Your task to perform on an android device: Clear the cart on amazon. Add macbook pro to the cart on amazon Image 0: 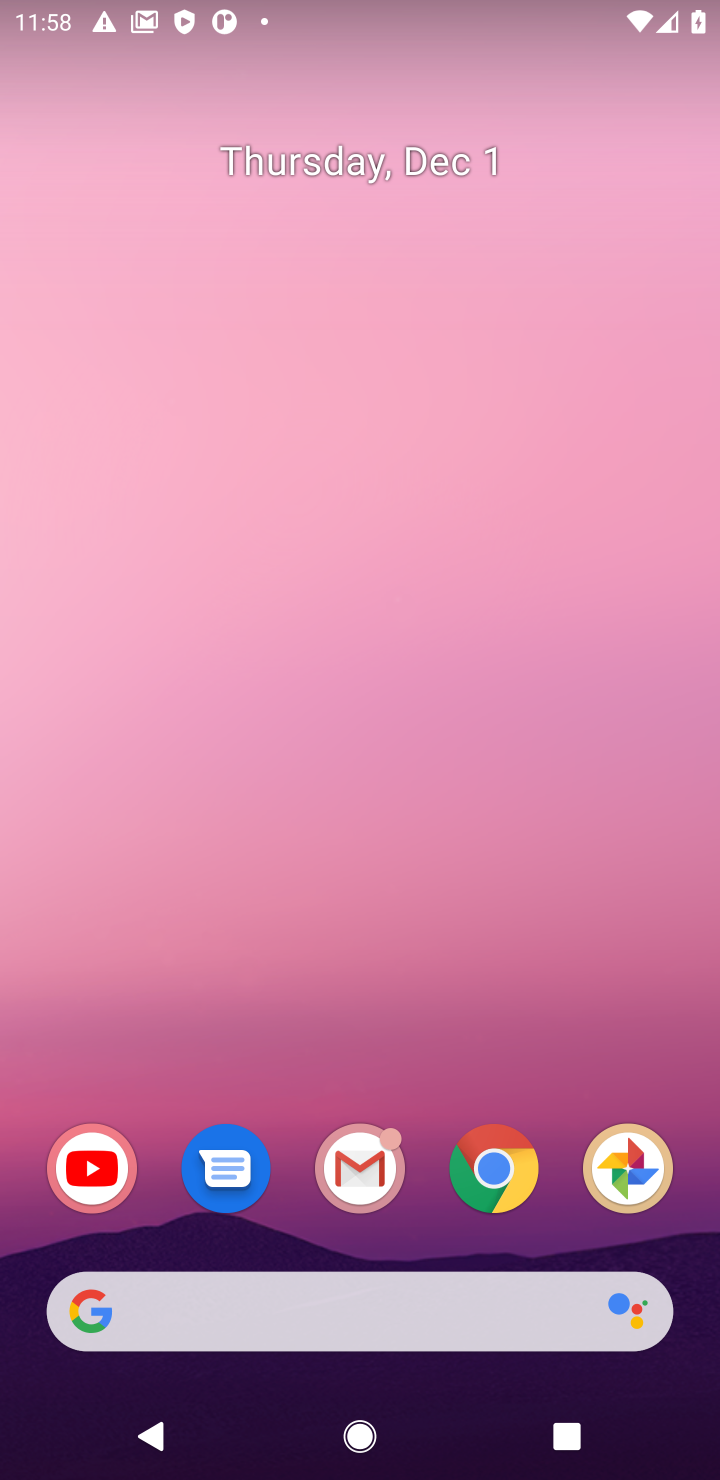
Step 0: click (488, 1158)
Your task to perform on an android device: Clear the cart on amazon. Add macbook pro to the cart on amazon Image 1: 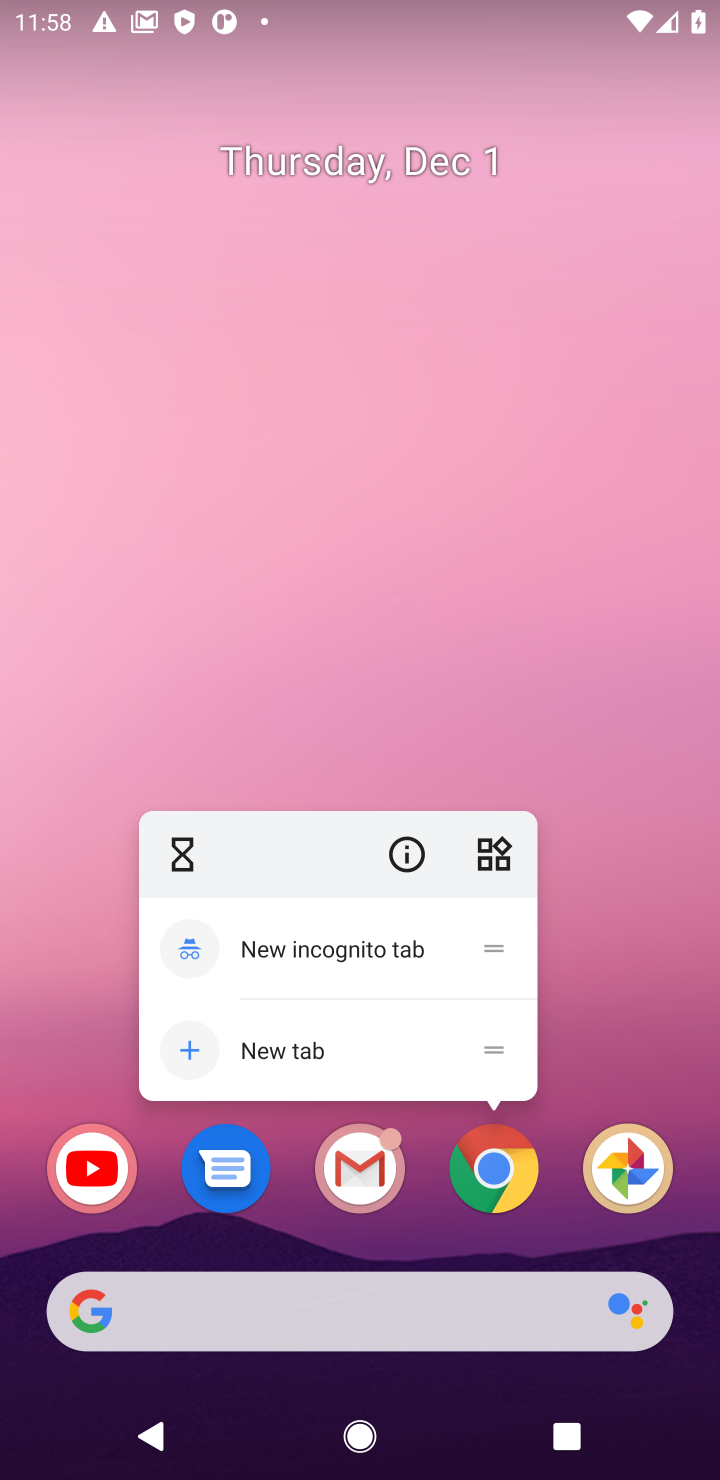
Step 1: click (488, 1158)
Your task to perform on an android device: Clear the cart on amazon. Add macbook pro to the cart on amazon Image 2: 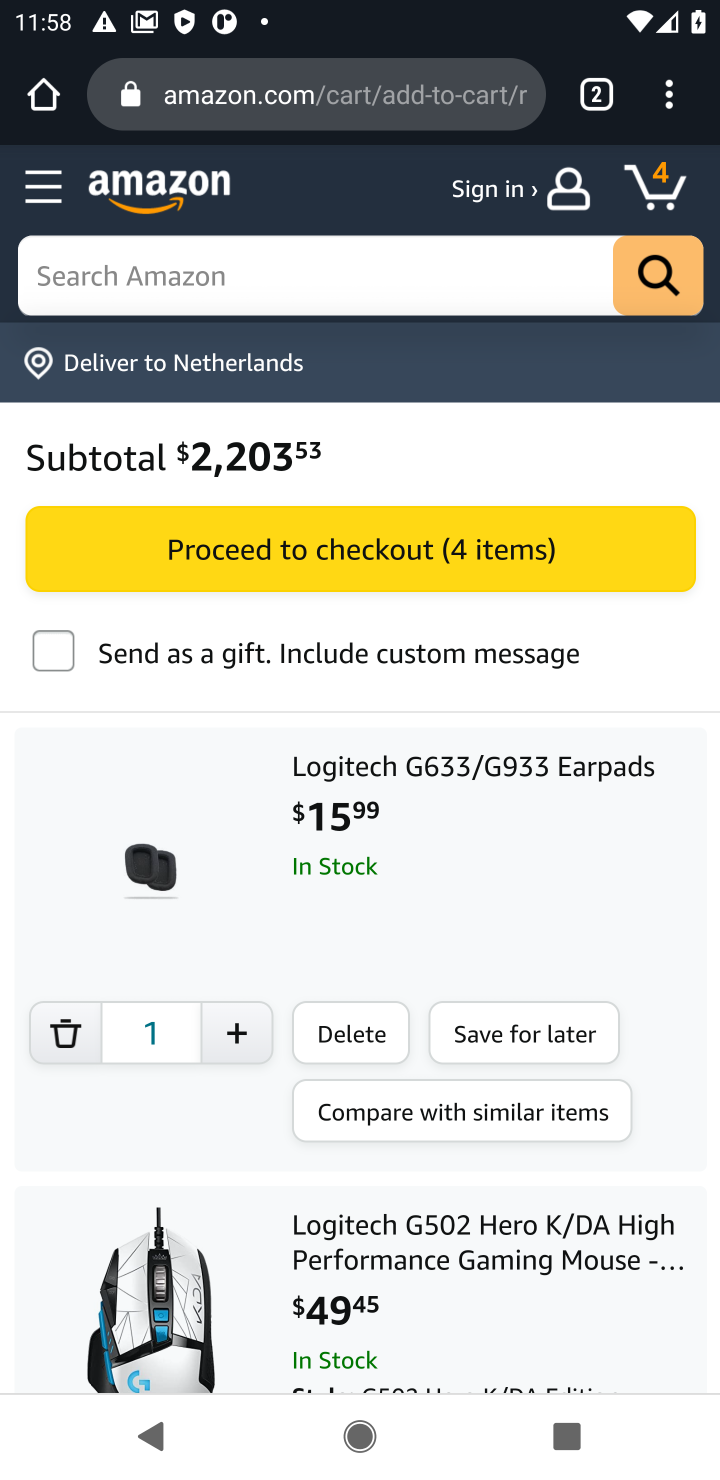
Step 2: click (61, 1037)
Your task to perform on an android device: Clear the cart on amazon. Add macbook pro to the cart on amazon Image 3: 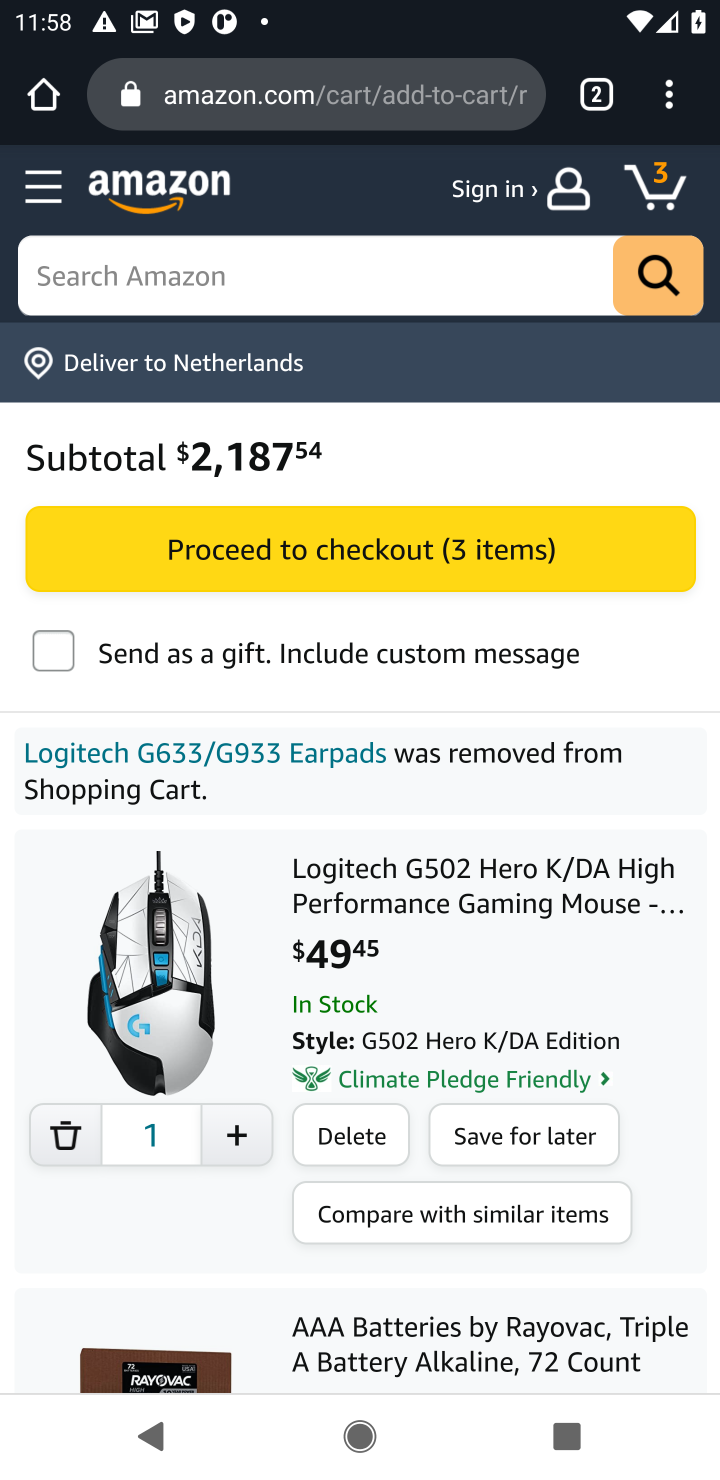
Step 3: click (66, 1137)
Your task to perform on an android device: Clear the cart on amazon. Add macbook pro to the cart on amazon Image 4: 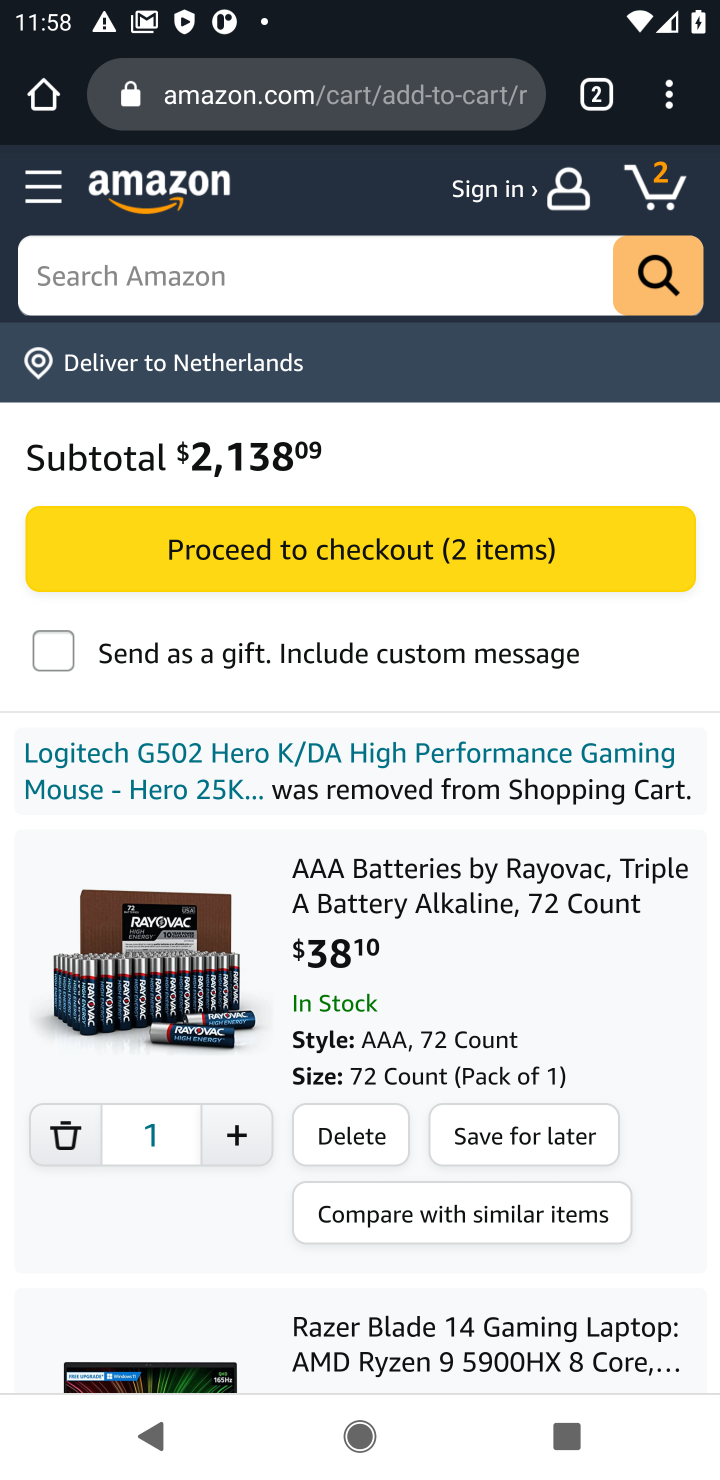
Step 4: click (66, 1137)
Your task to perform on an android device: Clear the cart on amazon. Add macbook pro to the cart on amazon Image 5: 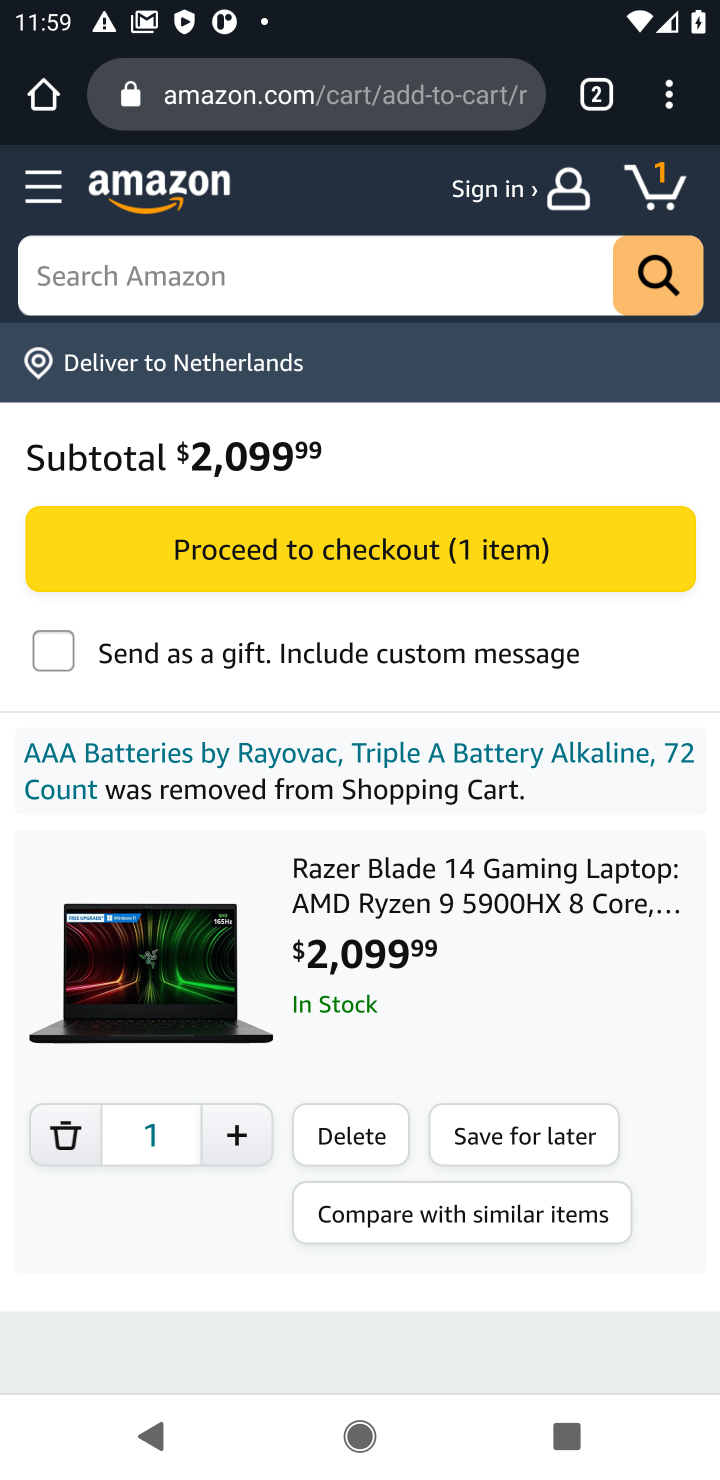
Step 5: click (66, 1139)
Your task to perform on an android device: Clear the cart on amazon. Add macbook pro to the cart on amazon Image 6: 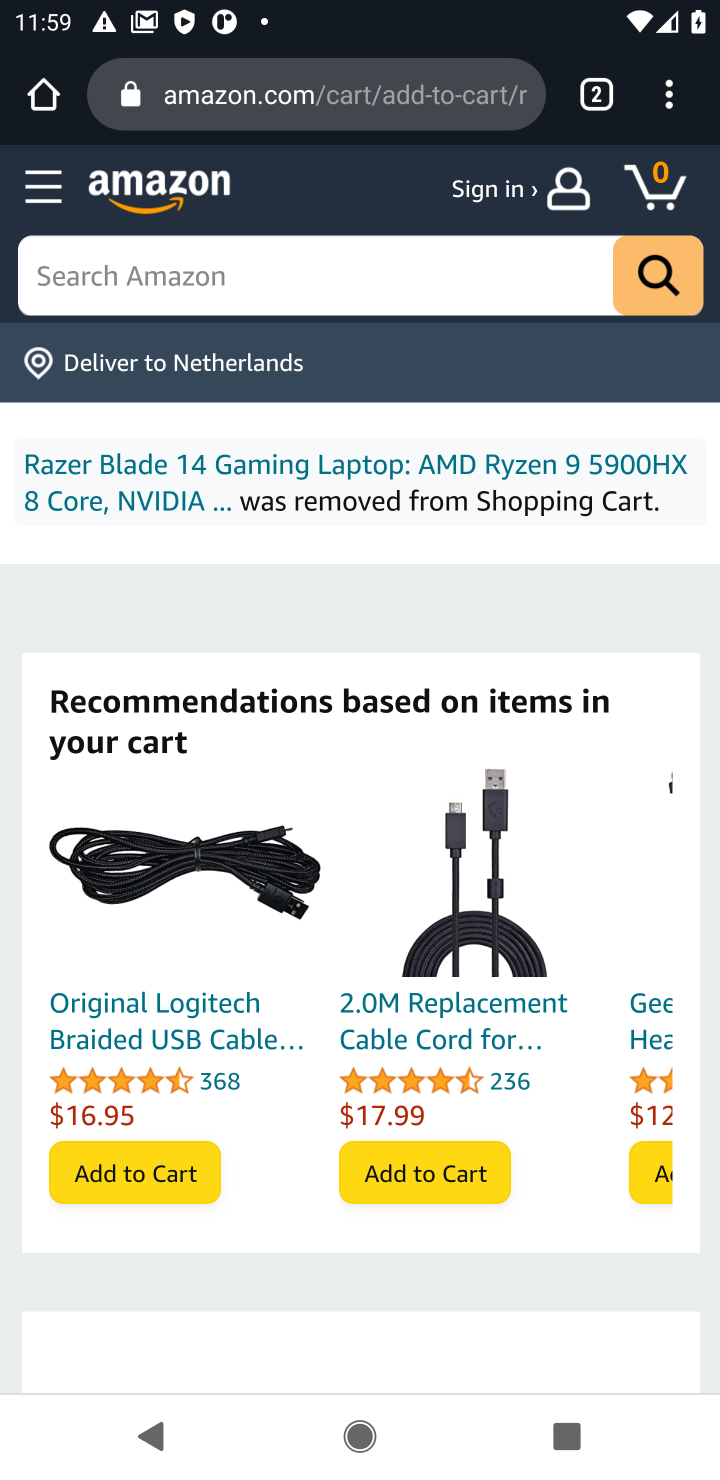
Step 6: click (148, 276)
Your task to perform on an android device: Clear the cart on amazon. Add macbook pro to the cart on amazon Image 7: 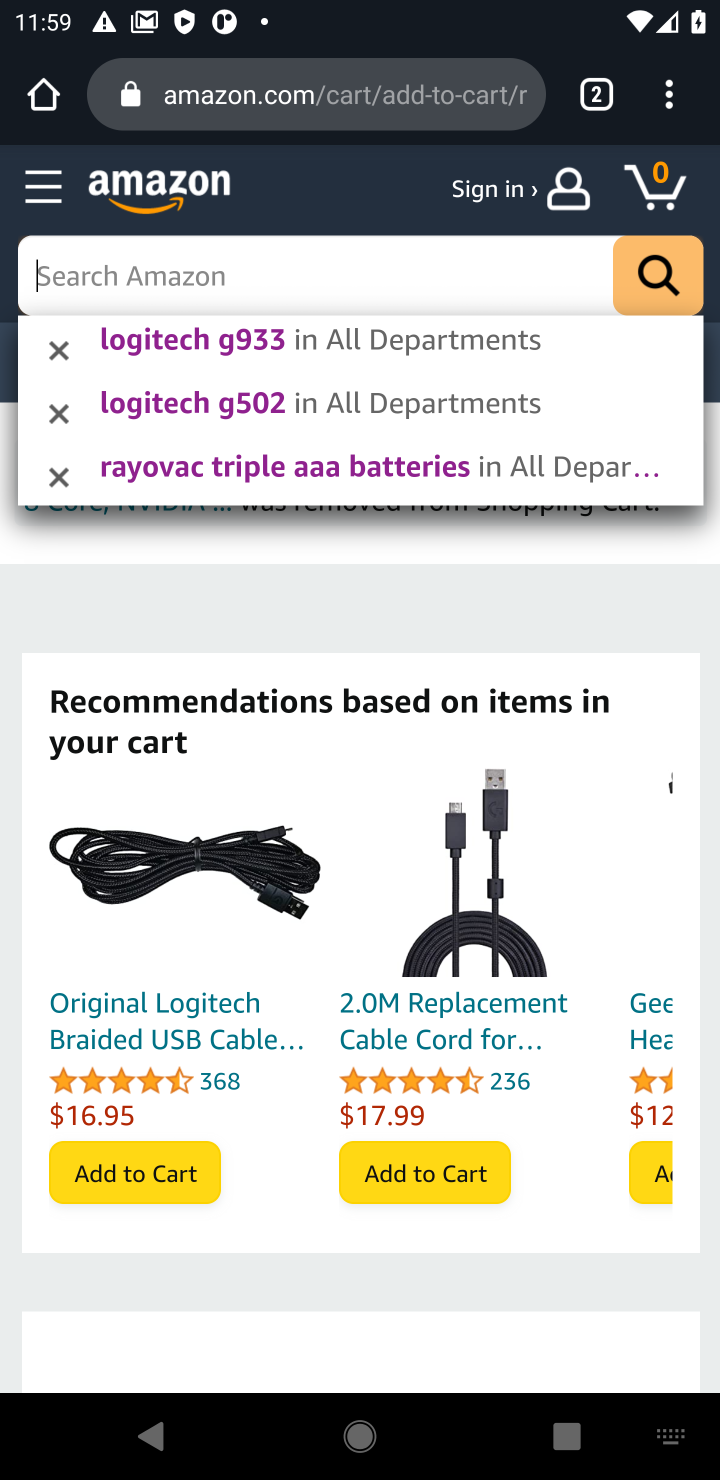
Step 7: type "macbook pro"
Your task to perform on an android device: Clear the cart on amazon. Add macbook pro to the cart on amazon Image 8: 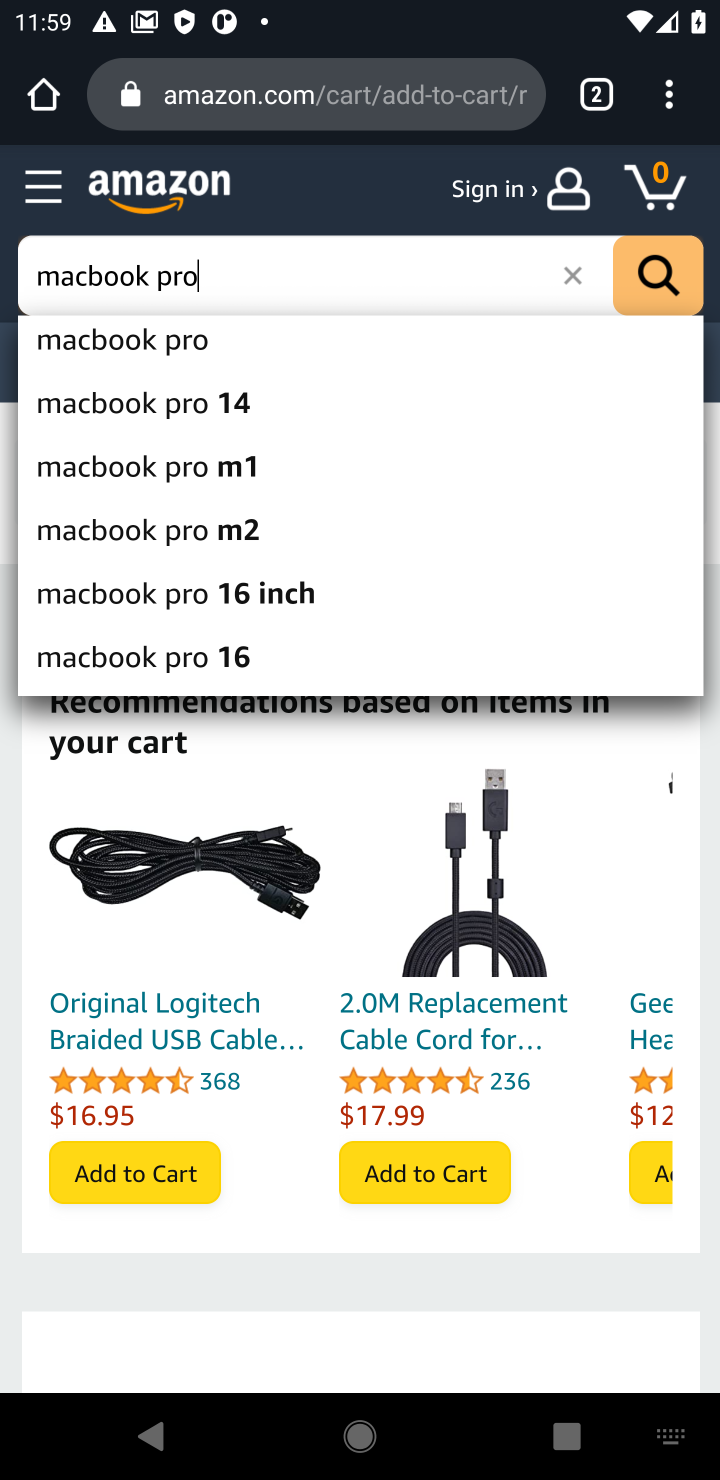
Step 8: click (127, 347)
Your task to perform on an android device: Clear the cart on amazon. Add macbook pro to the cart on amazon Image 9: 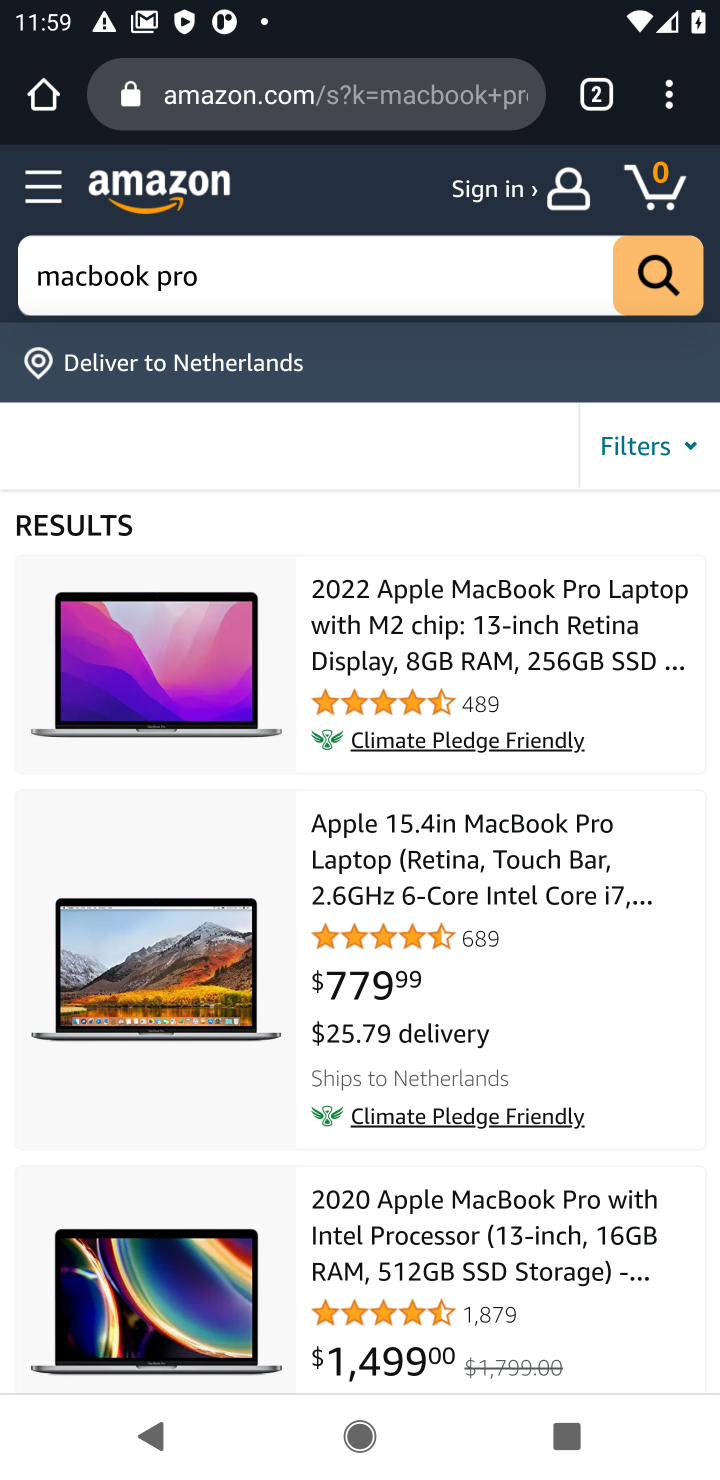
Step 9: drag from (367, 1125) to (329, 711)
Your task to perform on an android device: Clear the cart on amazon. Add macbook pro to the cart on amazon Image 10: 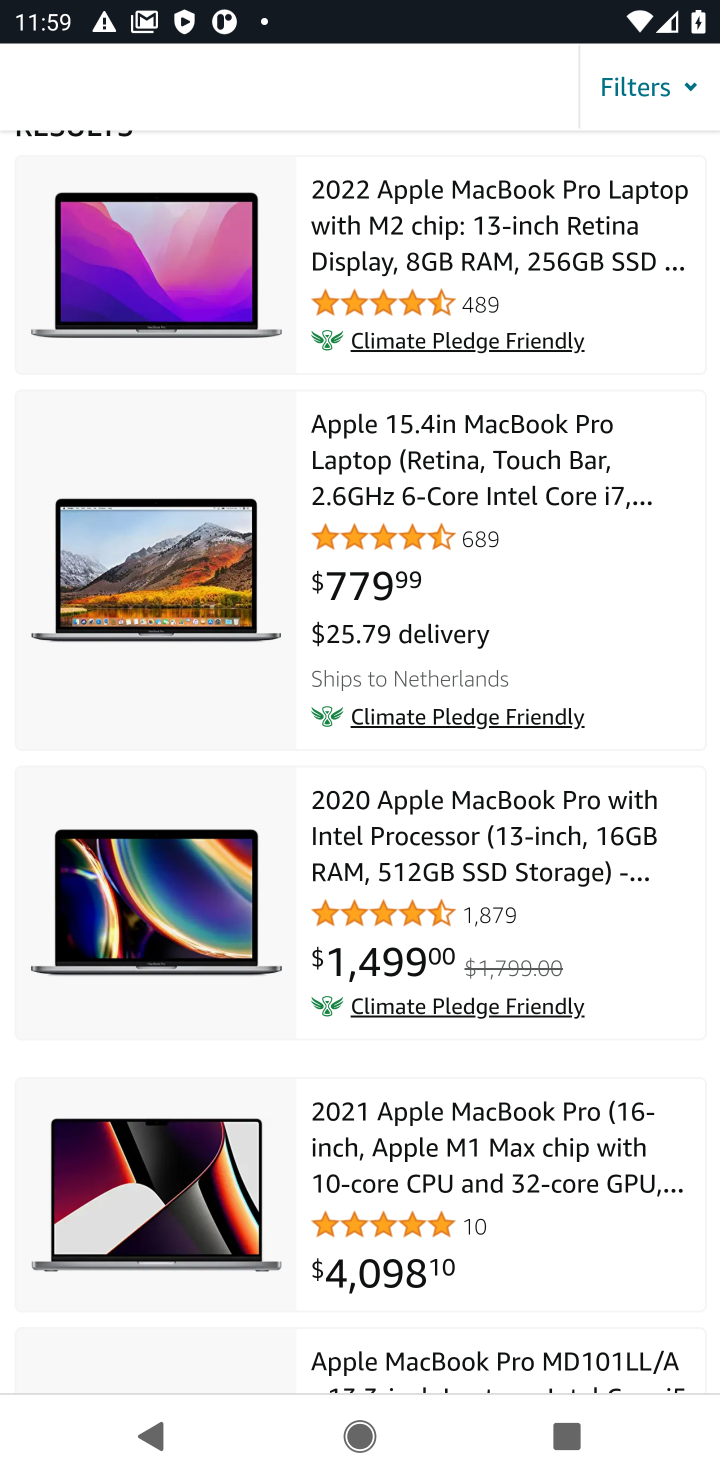
Step 10: click (376, 477)
Your task to perform on an android device: Clear the cart on amazon. Add macbook pro to the cart on amazon Image 11: 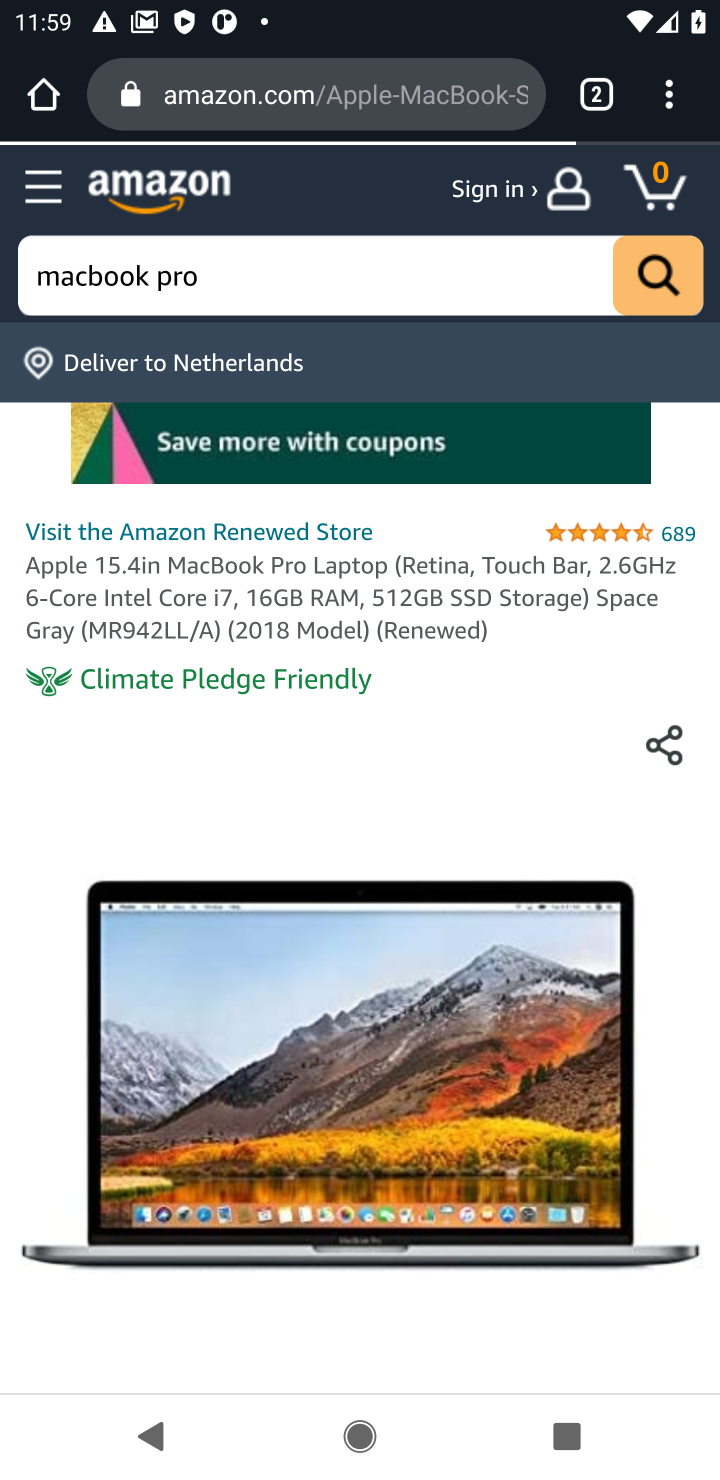
Step 11: drag from (366, 862) to (335, 498)
Your task to perform on an android device: Clear the cart on amazon. Add macbook pro to the cart on amazon Image 12: 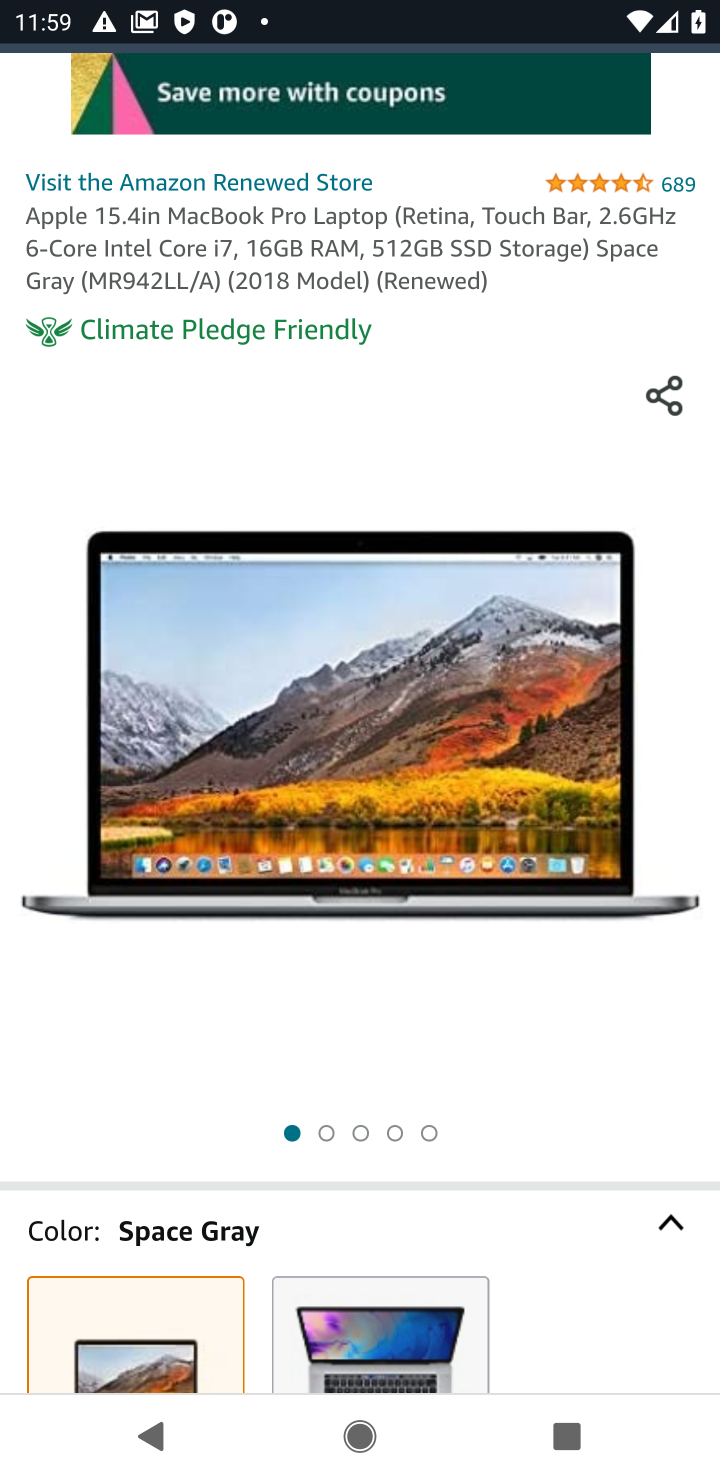
Step 12: drag from (475, 952) to (403, 457)
Your task to perform on an android device: Clear the cart on amazon. Add macbook pro to the cart on amazon Image 13: 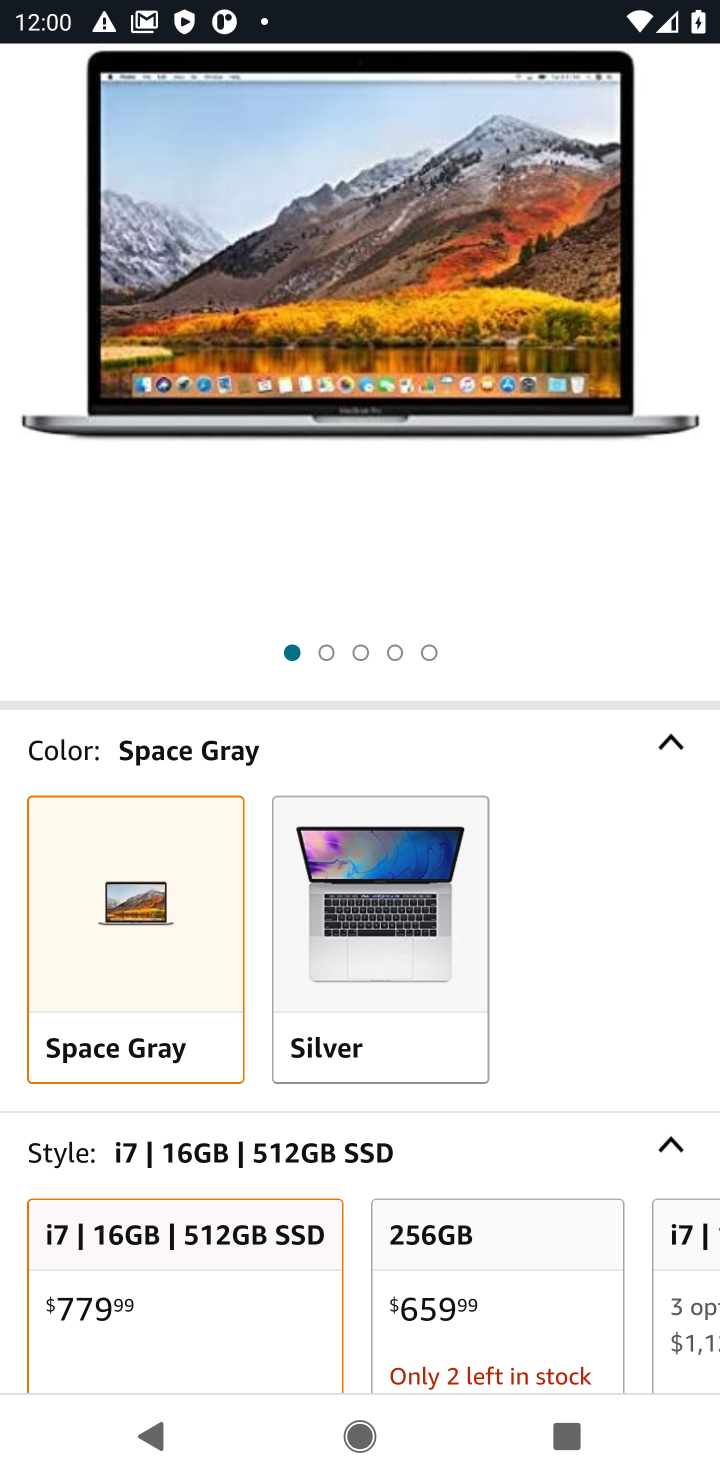
Step 13: drag from (536, 1069) to (521, 444)
Your task to perform on an android device: Clear the cart on amazon. Add macbook pro to the cart on amazon Image 14: 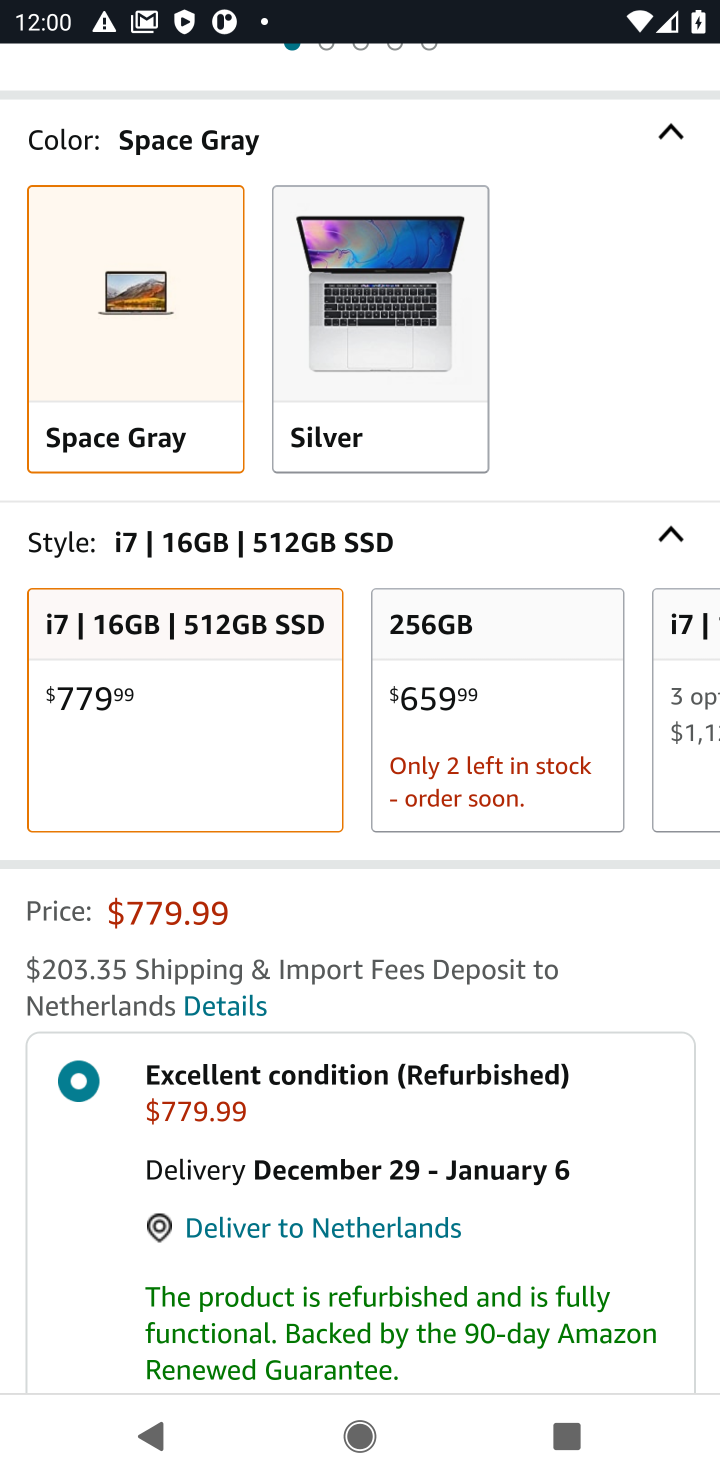
Step 14: drag from (559, 891) to (487, 339)
Your task to perform on an android device: Clear the cart on amazon. Add macbook pro to the cart on amazon Image 15: 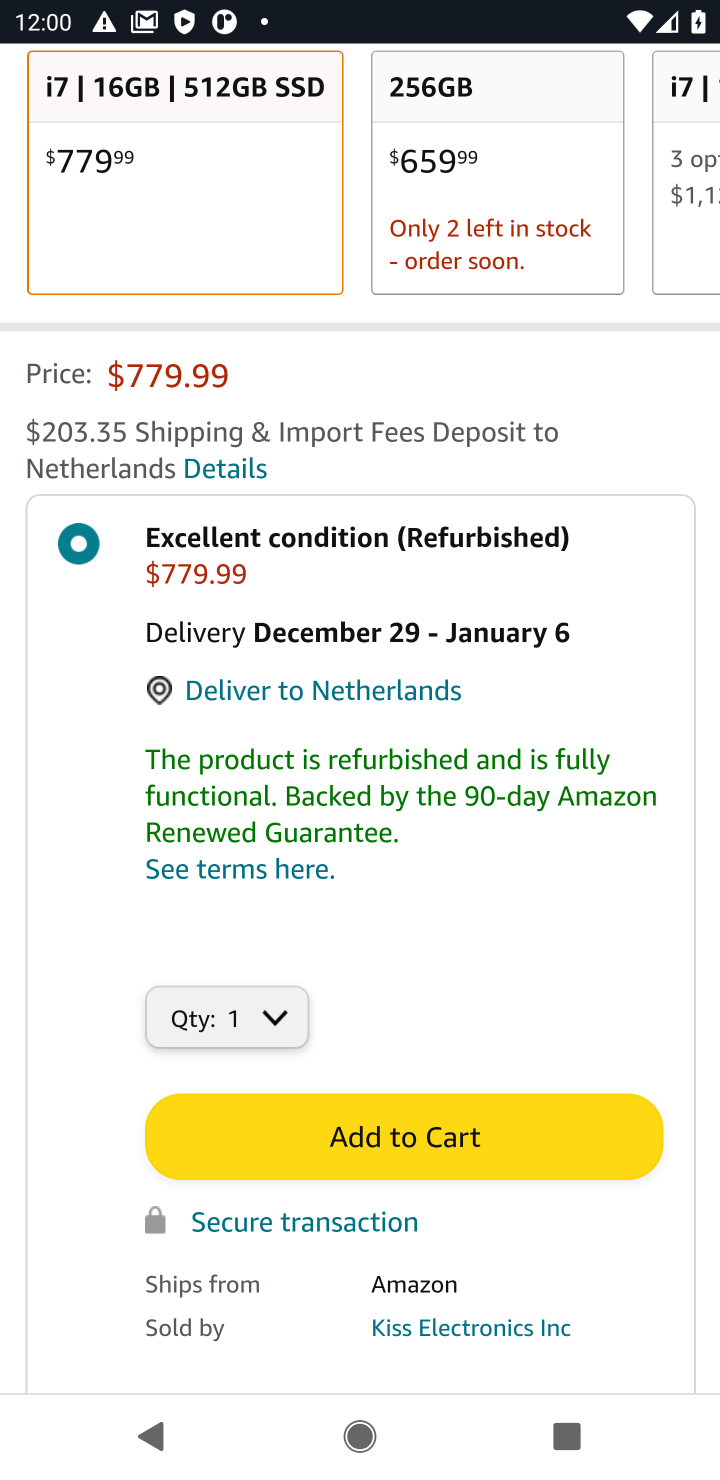
Step 15: click (470, 1120)
Your task to perform on an android device: Clear the cart on amazon. Add macbook pro to the cart on amazon Image 16: 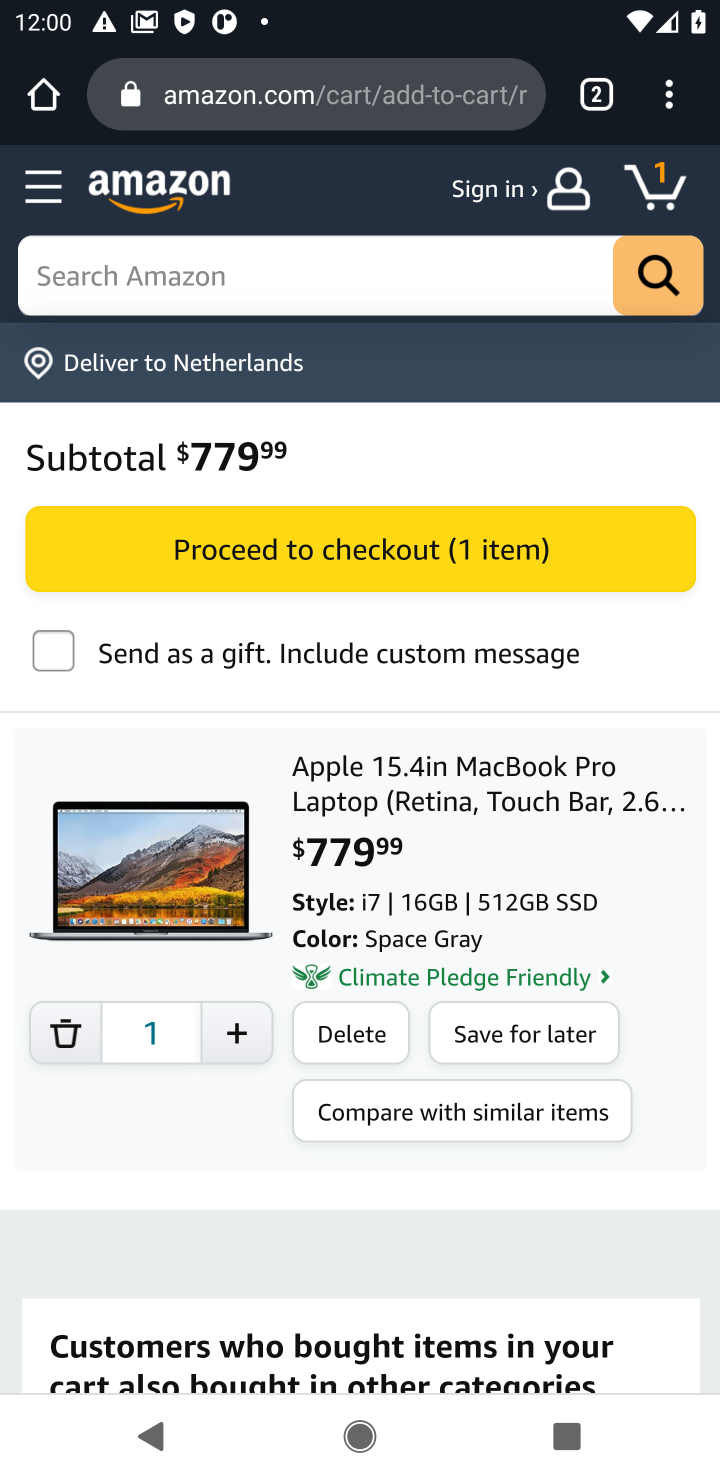
Step 16: task complete